Your task to perform on an android device: Open privacy settings Image 0: 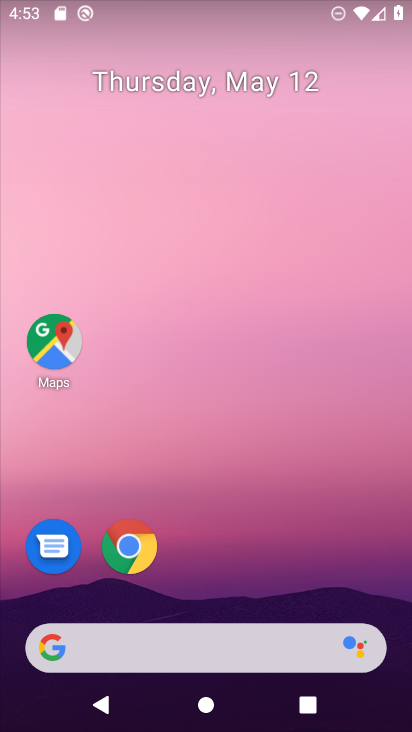
Step 0: drag from (241, 554) to (285, 256)
Your task to perform on an android device: Open privacy settings Image 1: 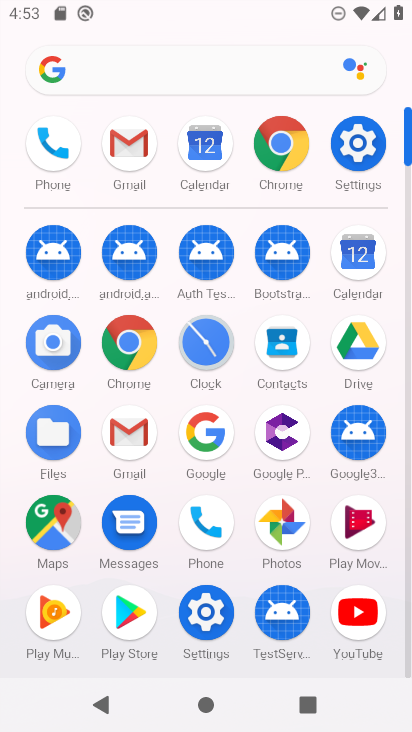
Step 1: click (349, 142)
Your task to perform on an android device: Open privacy settings Image 2: 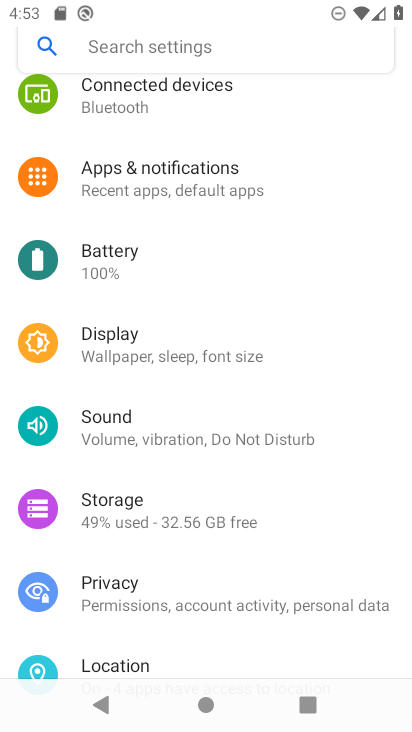
Step 2: click (125, 591)
Your task to perform on an android device: Open privacy settings Image 3: 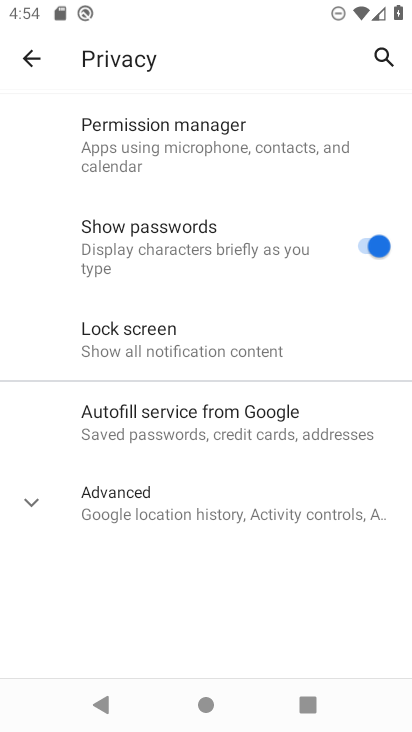
Step 3: task complete